Your task to perform on an android device: Search for Mexican restaurants on Maps Image 0: 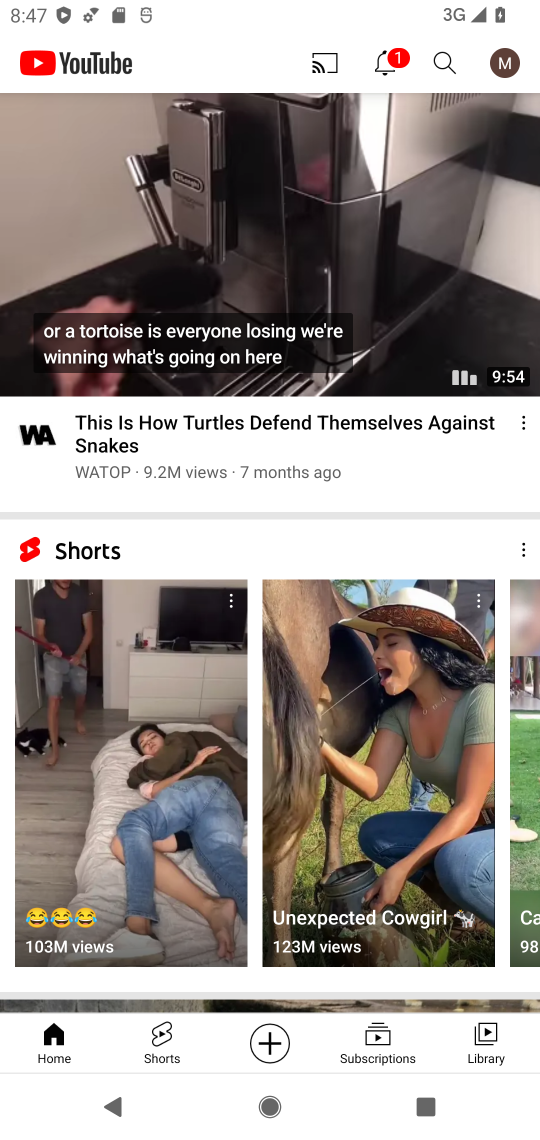
Step 0: press home button
Your task to perform on an android device: Search for Mexican restaurants on Maps Image 1: 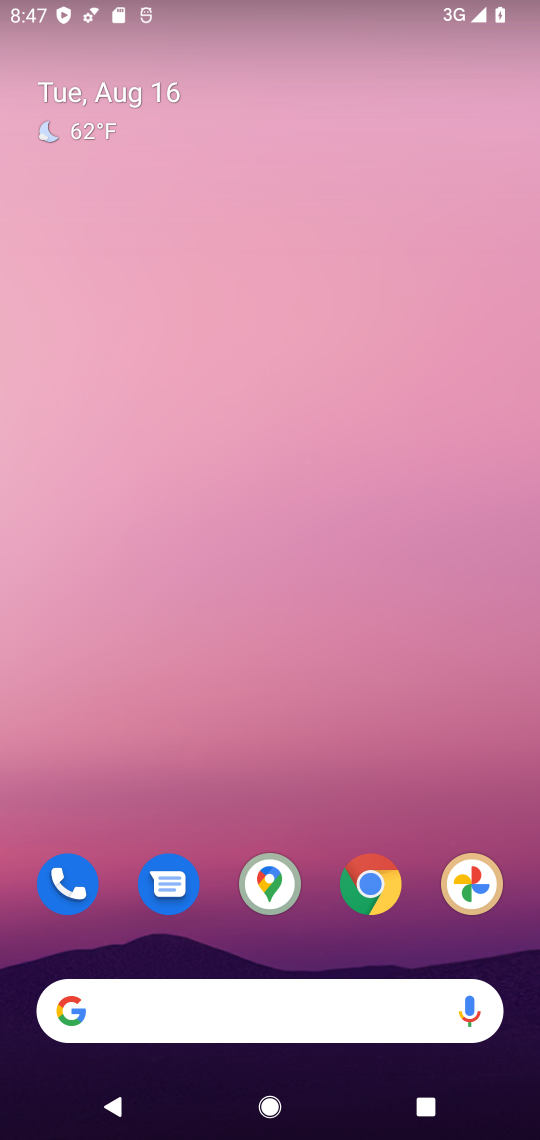
Step 1: click (264, 883)
Your task to perform on an android device: Search for Mexican restaurants on Maps Image 2: 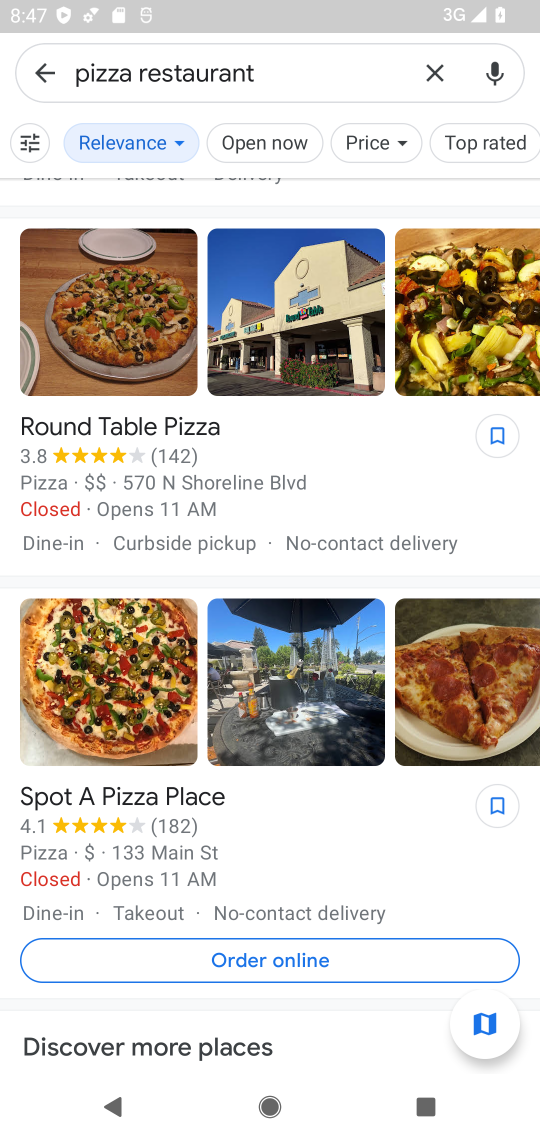
Step 2: click (433, 61)
Your task to perform on an android device: Search for Mexican restaurants on Maps Image 3: 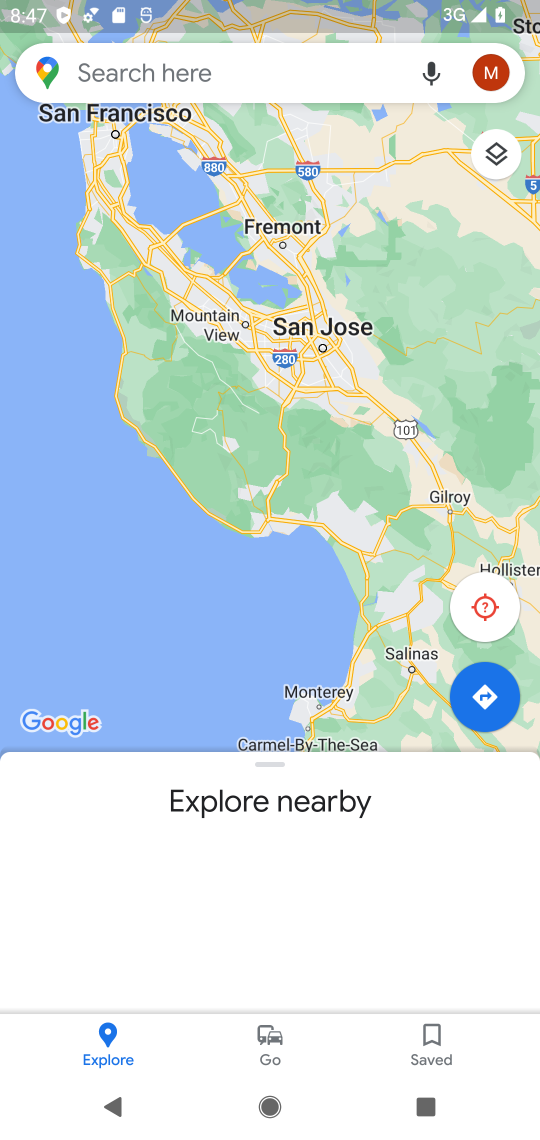
Step 3: click (182, 77)
Your task to perform on an android device: Search for Mexican restaurants on Maps Image 4: 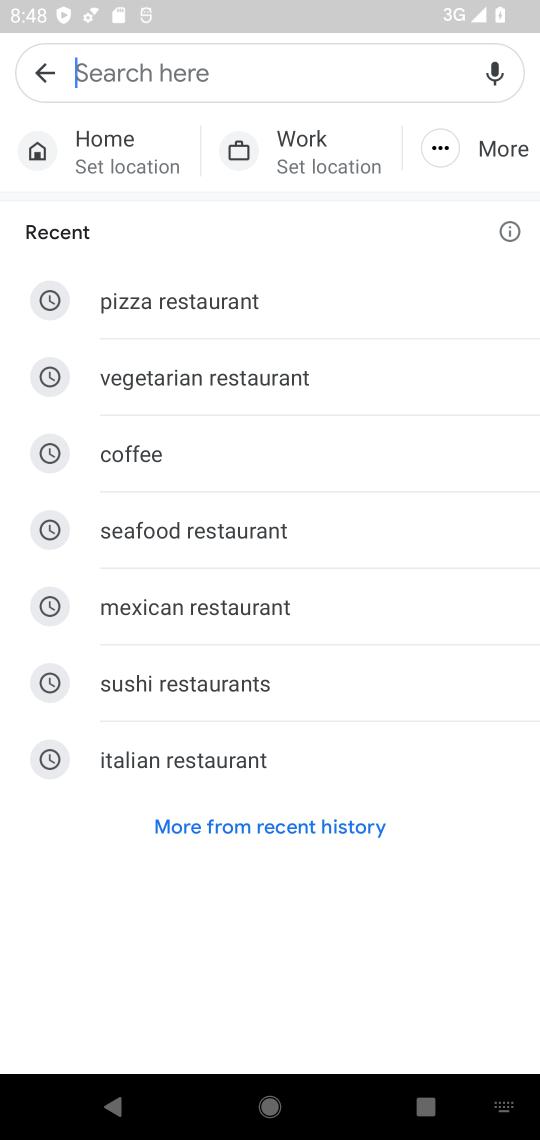
Step 4: type "mexican restaurants"
Your task to perform on an android device: Search for Mexican restaurants on Maps Image 5: 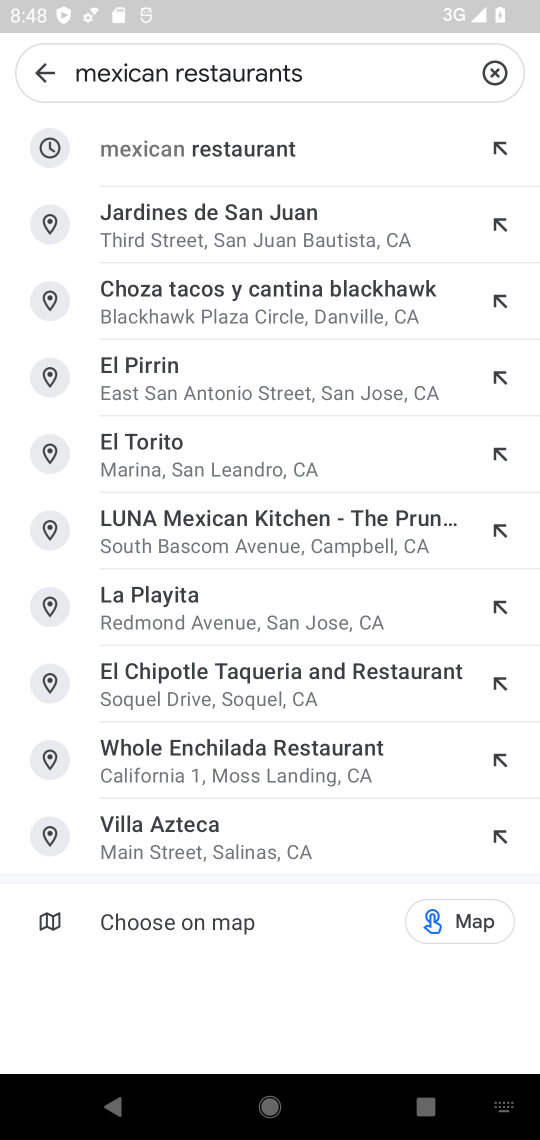
Step 5: click (201, 144)
Your task to perform on an android device: Search for Mexican restaurants on Maps Image 6: 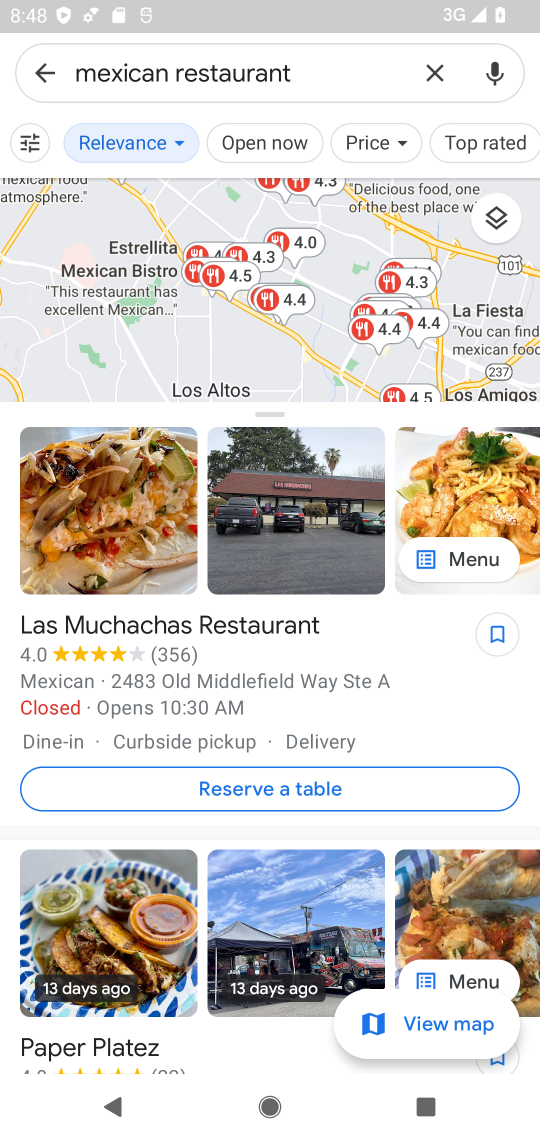
Step 6: task complete